Your task to perform on an android device: clear all cookies in the chrome app Image 0: 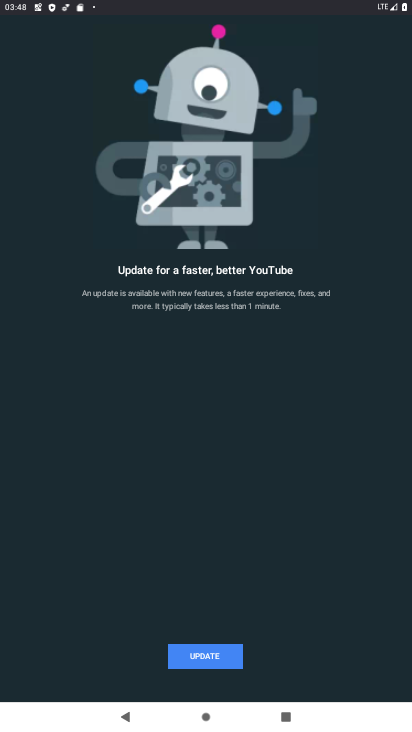
Step 0: press home button
Your task to perform on an android device: clear all cookies in the chrome app Image 1: 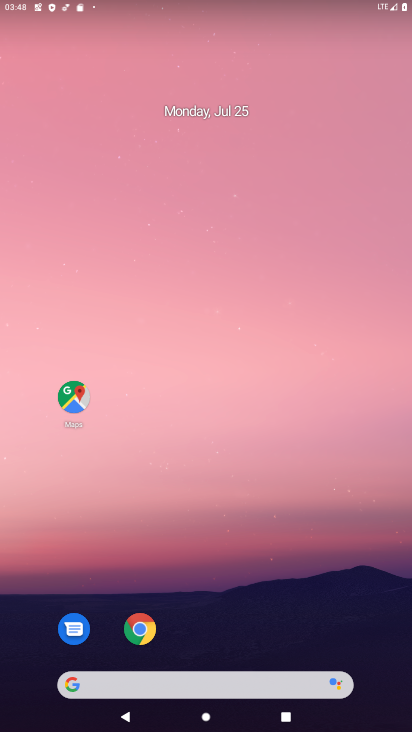
Step 1: click (148, 622)
Your task to perform on an android device: clear all cookies in the chrome app Image 2: 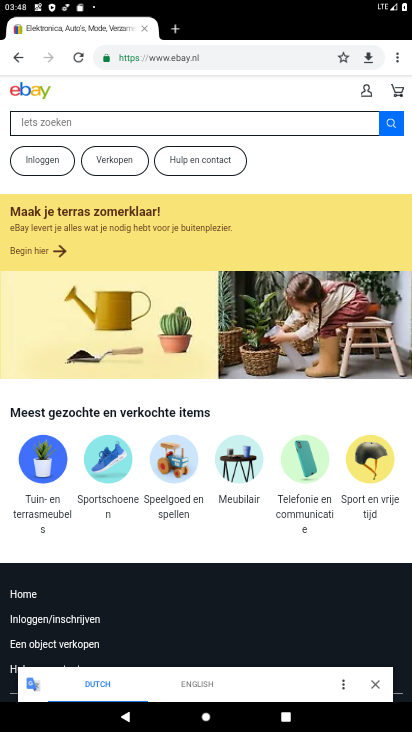
Step 2: drag from (394, 53) to (273, 382)
Your task to perform on an android device: clear all cookies in the chrome app Image 3: 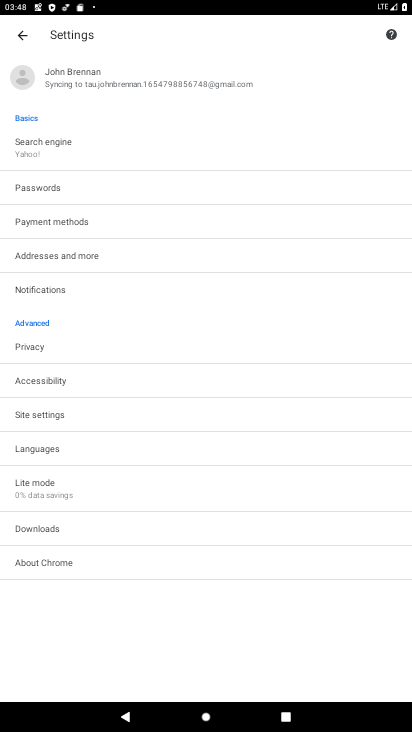
Step 3: click (45, 348)
Your task to perform on an android device: clear all cookies in the chrome app Image 4: 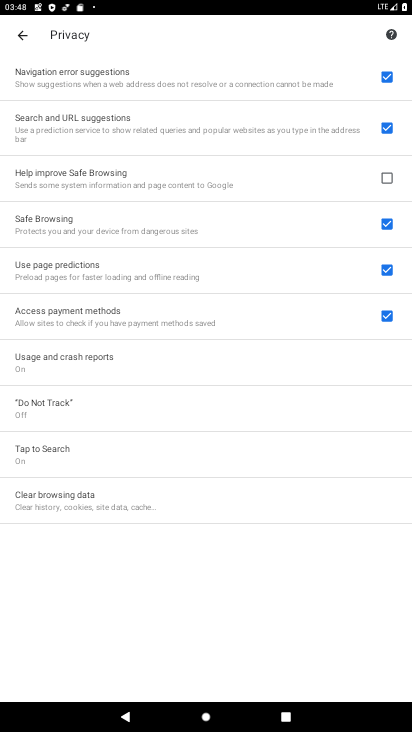
Step 4: click (75, 492)
Your task to perform on an android device: clear all cookies in the chrome app Image 5: 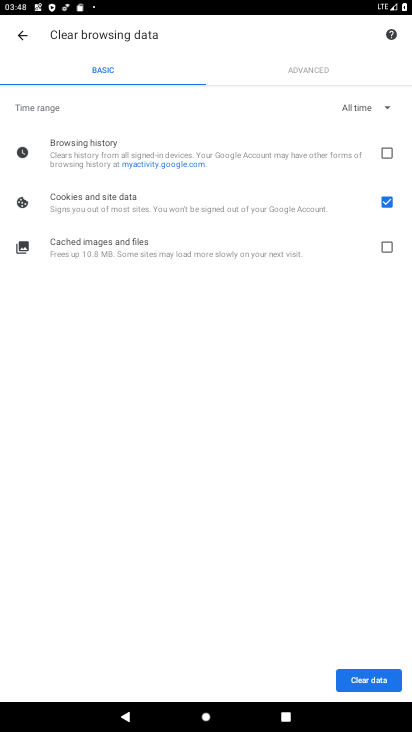
Step 5: click (361, 678)
Your task to perform on an android device: clear all cookies in the chrome app Image 6: 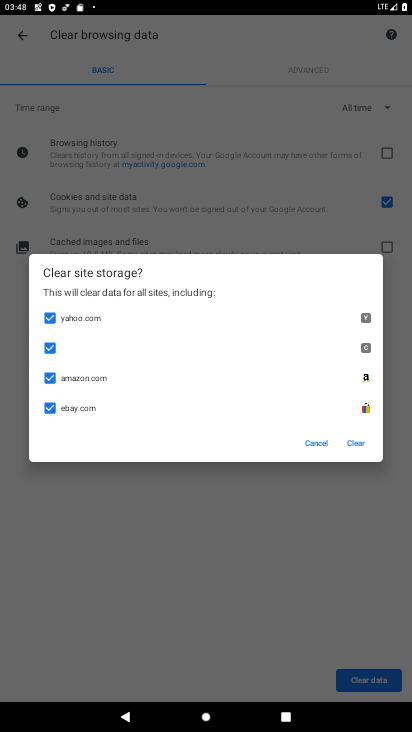
Step 6: click (360, 443)
Your task to perform on an android device: clear all cookies in the chrome app Image 7: 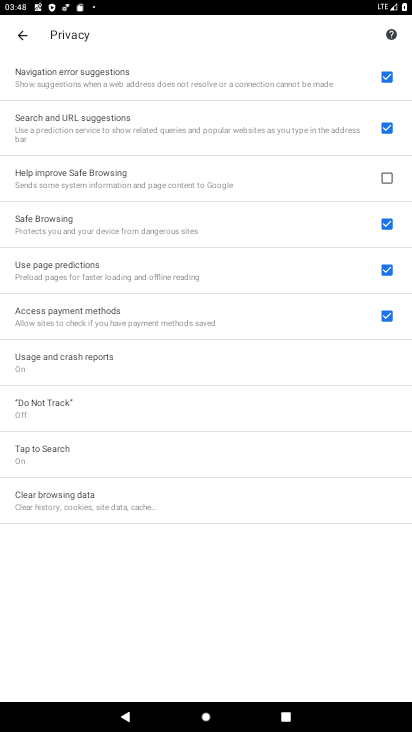
Step 7: task complete